Your task to perform on an android device: Open location settings Image 0: 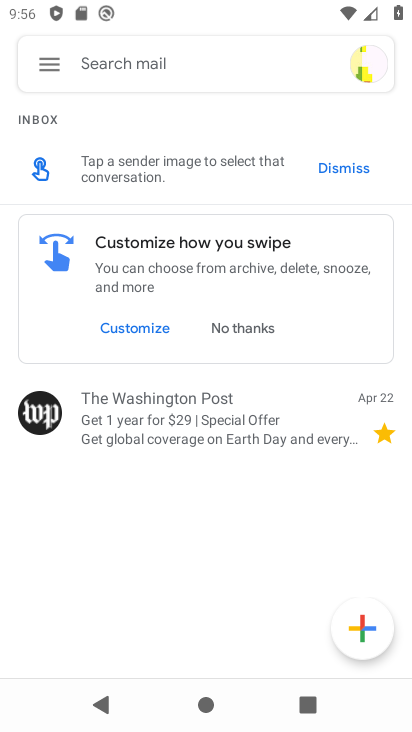
Step 0: press home button
Your task to perform on an android device: Open location settings Image 1: 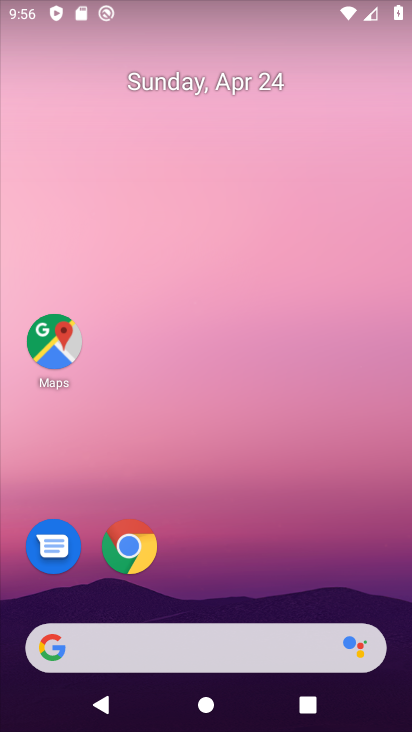
Step 1: drag from (279, 619) to (351, 190)
Your task to perform on an android device: Open location settings Image 2: 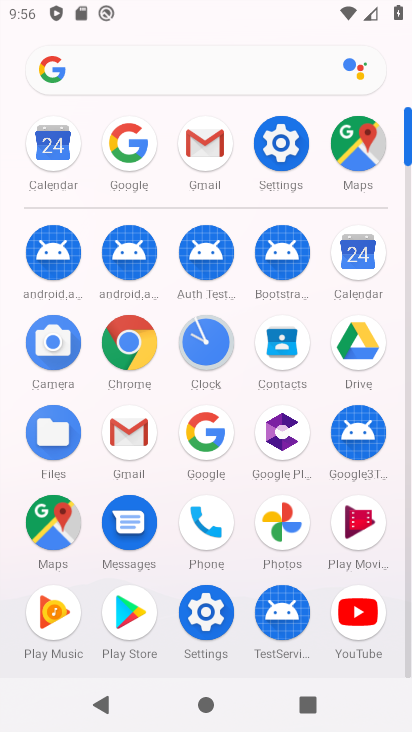
Step 2: click (301, 140)
Your task to perform on an android device: Open location settings Image 3: 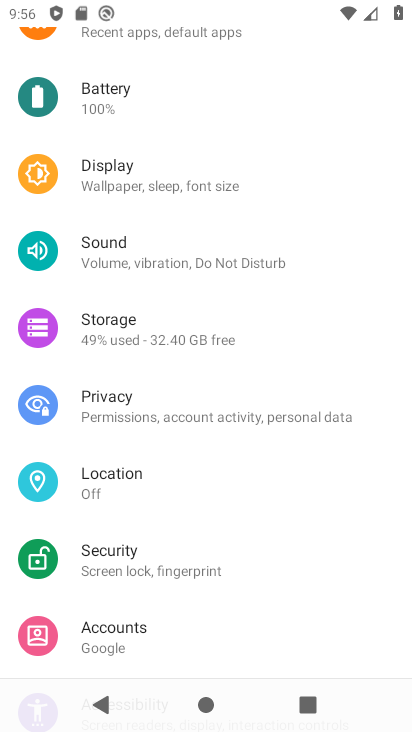
Step 3: click (179, 471)
Your task to perform on an android device: Open location settings Image 4: 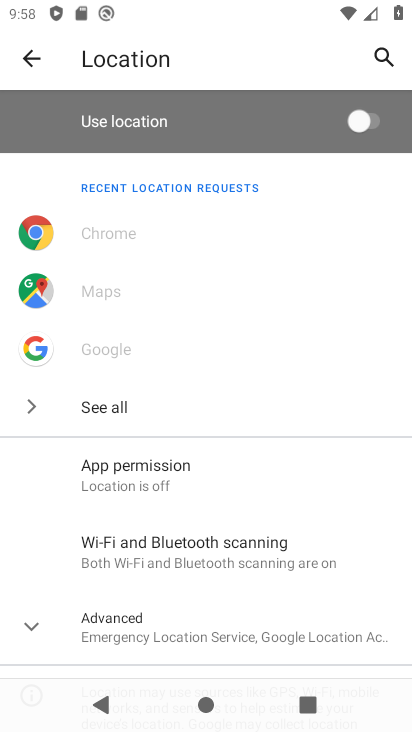
Step 4: task complete